Your task to perform on an android device: Check the news Image 0: 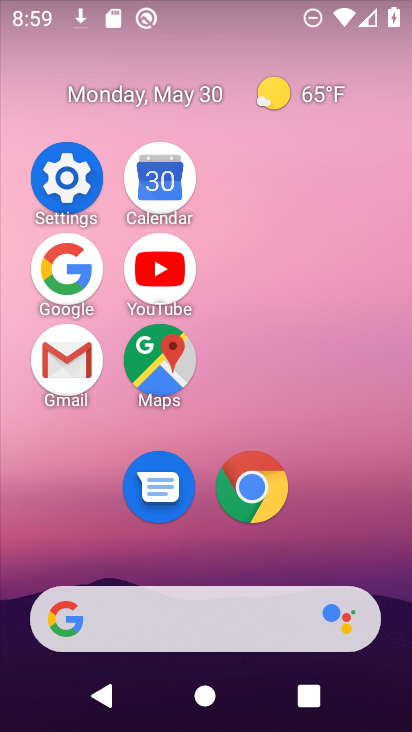
Step 0: click (83, 260)
Your task to perform on an android device: Check the news Image 1: 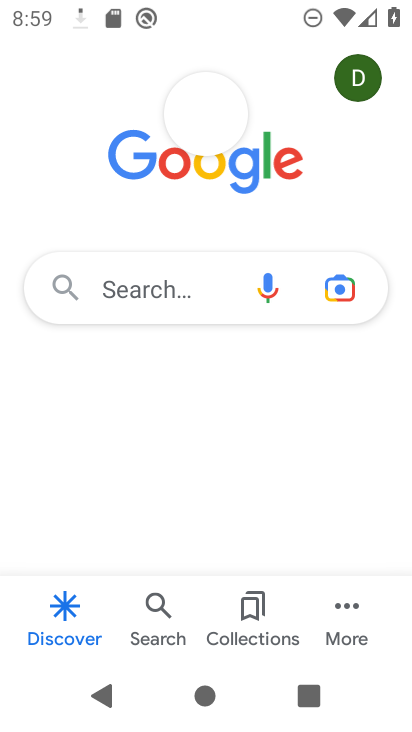
Step 1: click (205, 289)
Your task to perform on an android device: Check the news Image 2: 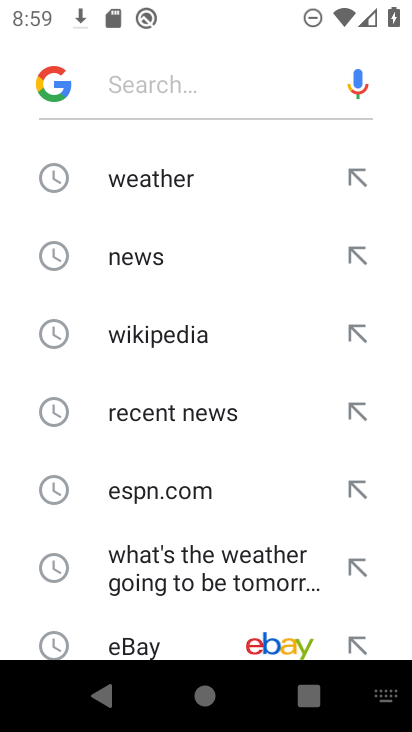
Step 2: task complete